Your task to perform on an android device: manage bookmarks in the chrome app Image 0: 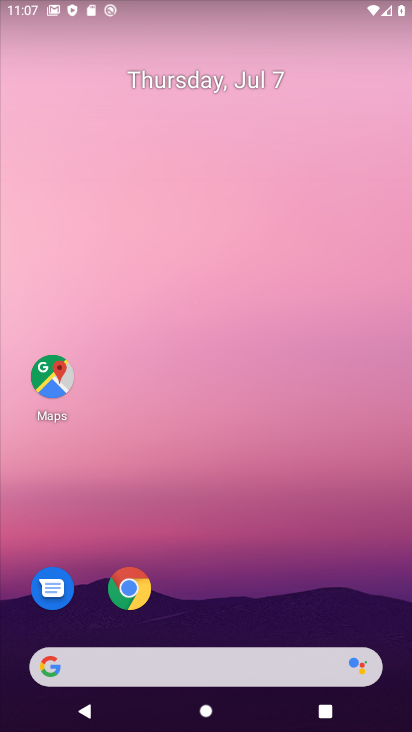
Step 0: click (132, 588)
Your task to perform on an android device: manage bookmarks in the chrome app Image 1: 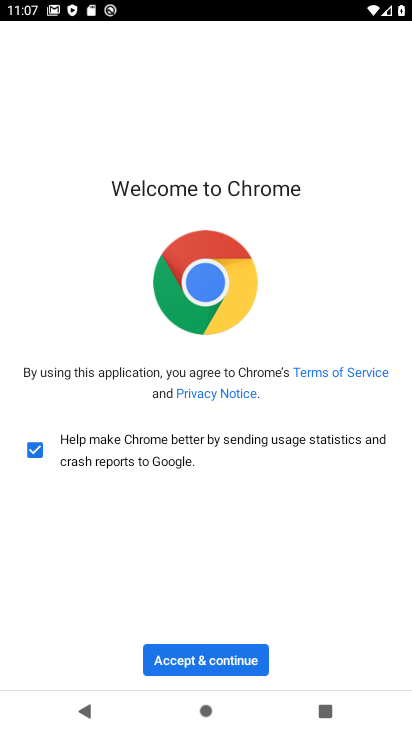
Step 1: click (195, 662)
Your task to perform on an android device: manage bookmarks in the chrome app Image 2: 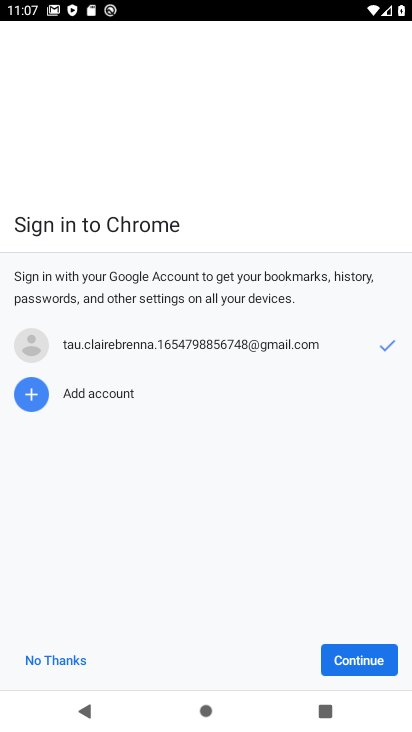
Step 2: click (347, 661)
Your task to perform on an android device: manage bookmarks in the chrome app Image 3: 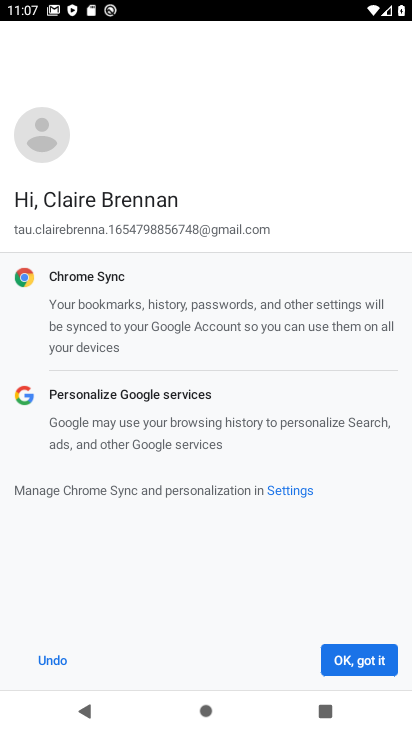
Step 3: click (347, 661)
Your task to perform on an android device: manage bookmarks in the chrome app Image 4: 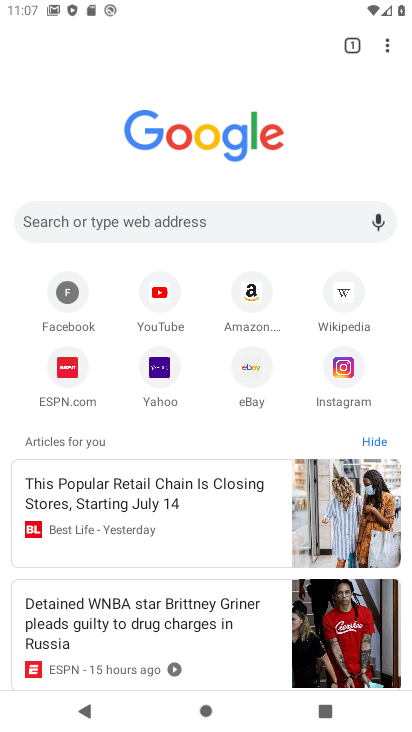
Step 4: click (383, 41)
Your task to perform on an android device: manage bookmarks in the chrome app Image 5: 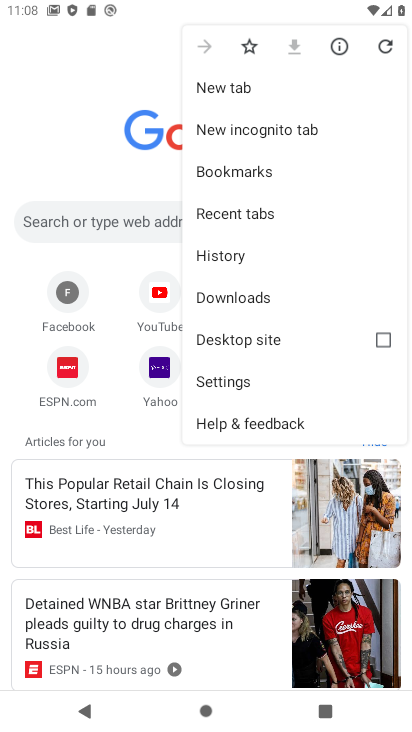
Step 5: click (267, 173)
Your task to perform on an android device: manage bookmarks in the chrome app Image 6: 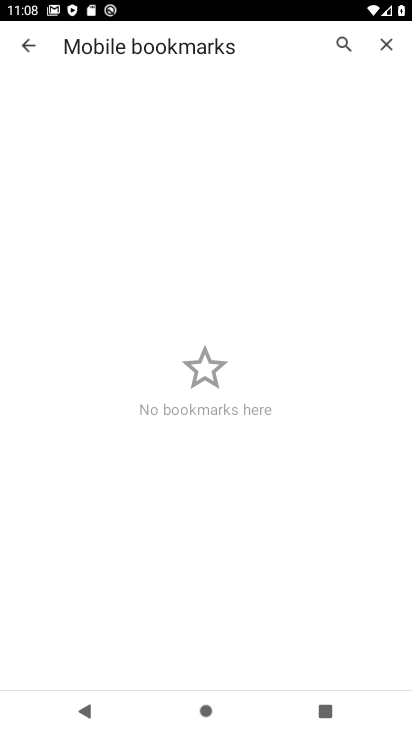
Step 6: task complete